Your task to perform on an android device: Open Yahoo.com Image 0: 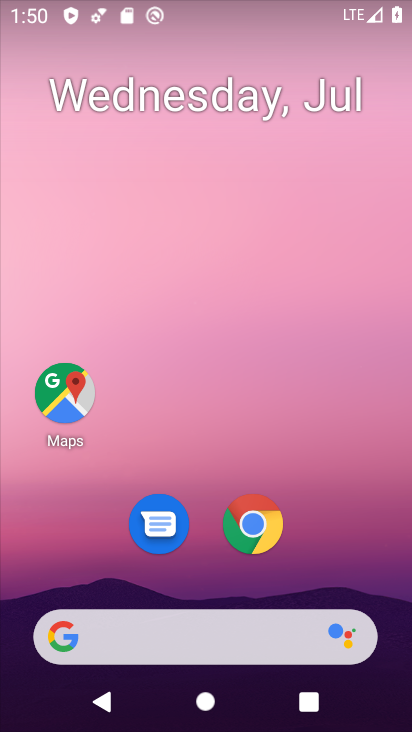
Step 0: click (268, 648)
Your task to perform on an android device: Open Yahoo.com Image 1: 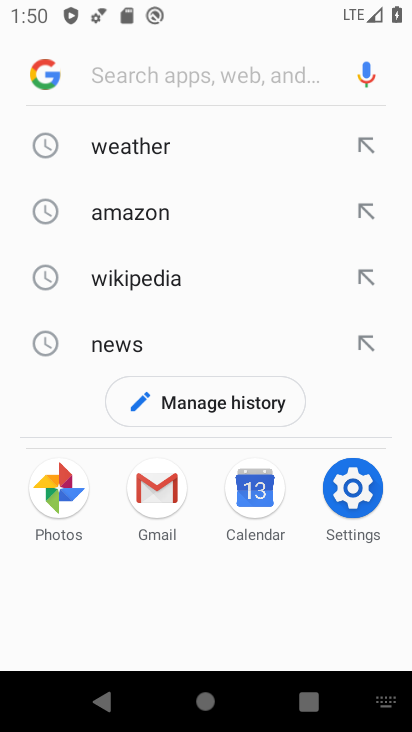
Step 1: type "yahoo.com"
Your task to perform on an android device: Open Yahoo.com Image 2: 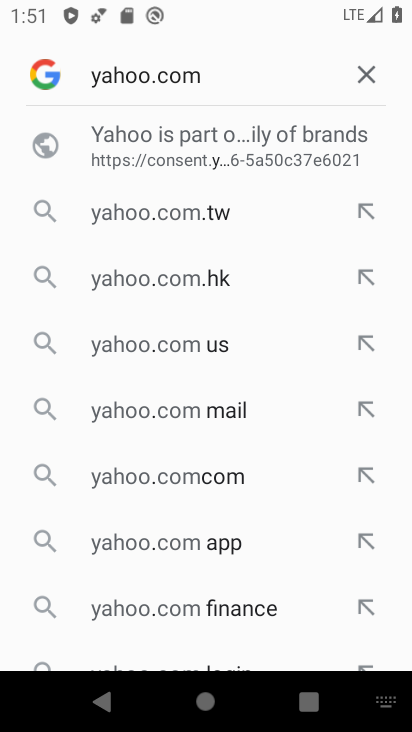
Step 2: click (138, 147)
Your task to perform on an android device: Open Yahoo.com Image 3: 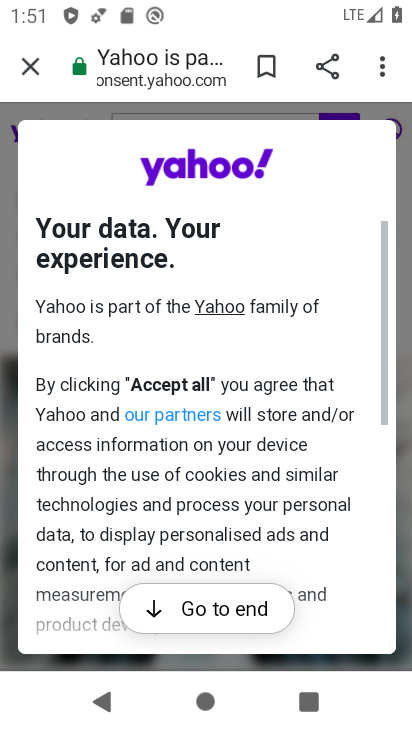
Step 3: click (270, 605)
Your task to perform on an android device: Open Yahoo.com Image 4: 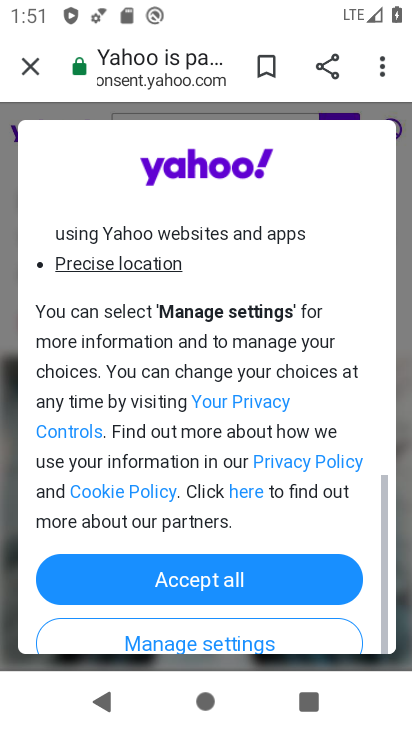
Step 4: click (268, 584)
Your task to perform on an android device: Open Yahoo.com Image 5: 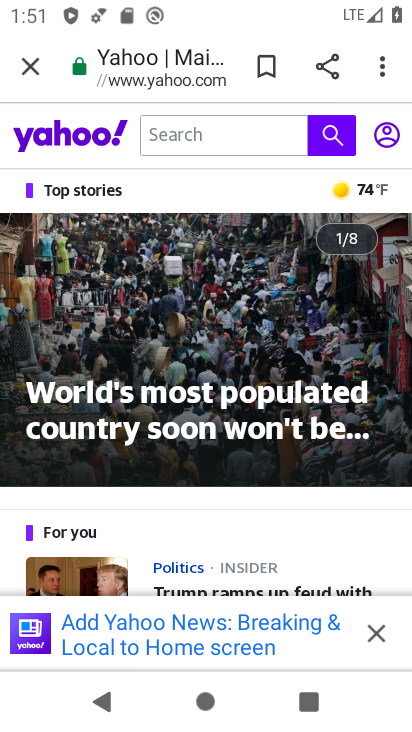
Step 5: task complete